Your task to perform on an android device: Open Amazon Image 0: 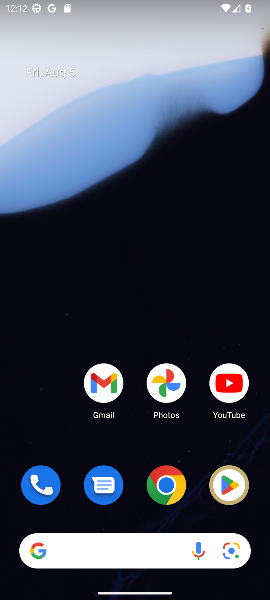
Step 0: click (170, 482)
Your task to perform on an android device: Open Amazon Image 1: 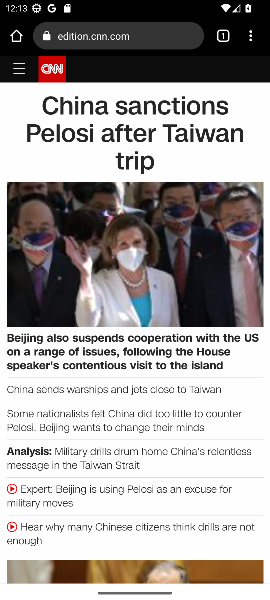
Step 1: click (254, 25)
Your task to perform on an android device: Open Amazon Image 2: 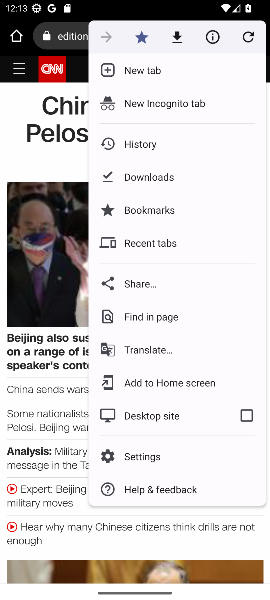
Step 2: click (132, 66)
Your task to perform on an android device: Open Amazon Image 3: 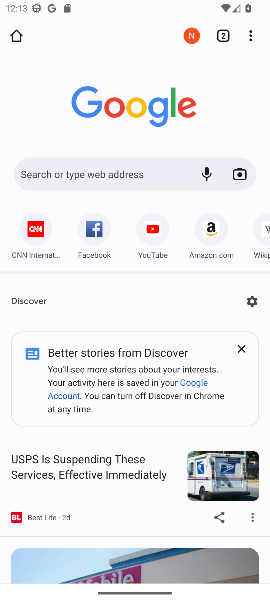
Step 3: click (216, 242)
Your task to perform on an android device: Open Amazon Image 4: 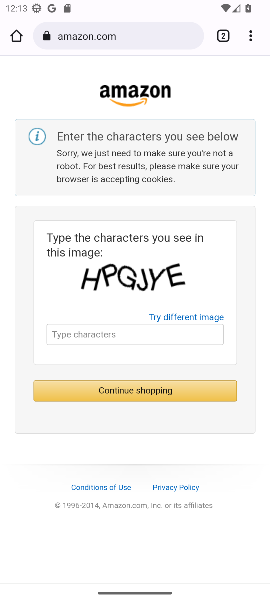
Step 4: task complete